Your task to perform on an android device: Open Yahoo.com Image 0: 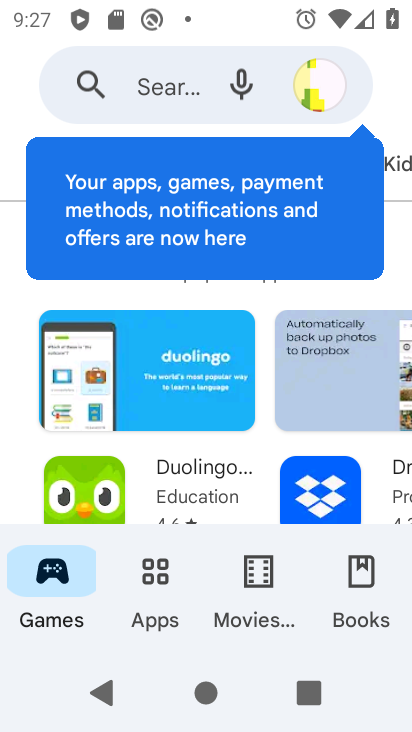
Step 0: press home button
Your task to perform on an android device: Open Yahoo.com Image 1: 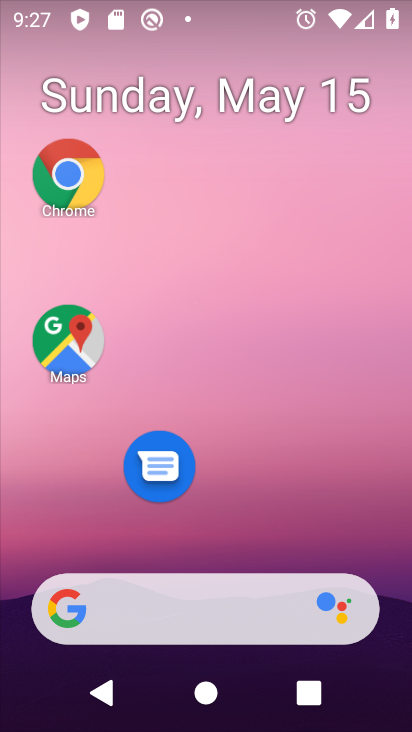
Step 1: click (67, 180)
Your task to perform on an android device: Open Yahoo.com Image 2: 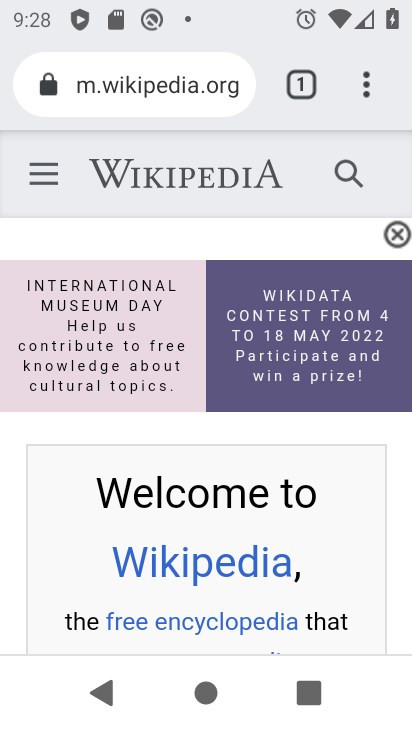
Step 2: click (108, 85)
Your task to perform on an android device: Open Yahoo.com Image 3: 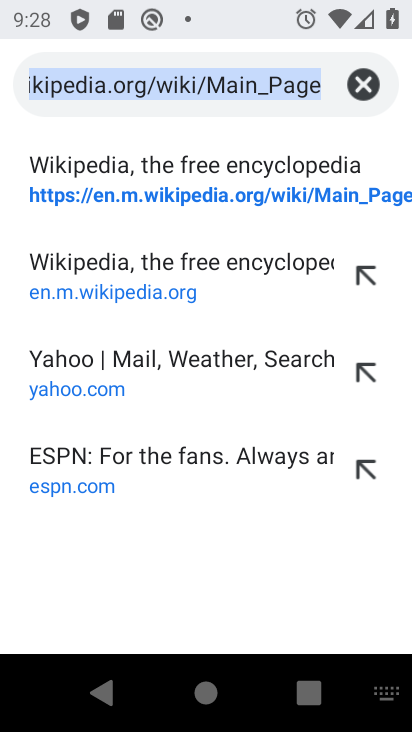
Step 3: type "yahoo.com"
Your task to perform on an android device: Open Yahoo.com Image 4: 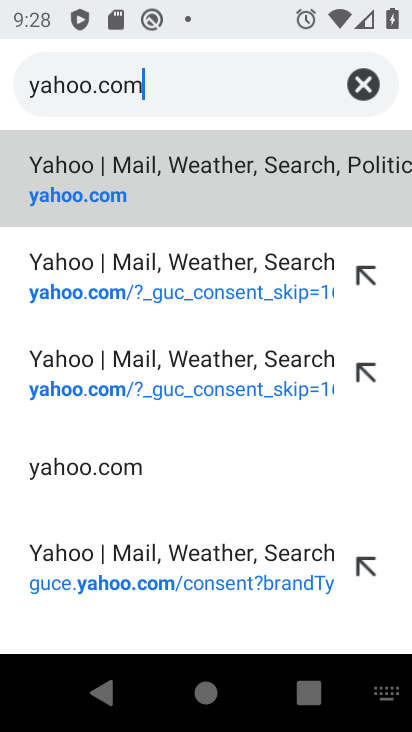
Step 4: click (58, 205)
Your task to perform on an android device: Open Yahoo.com Image 5: 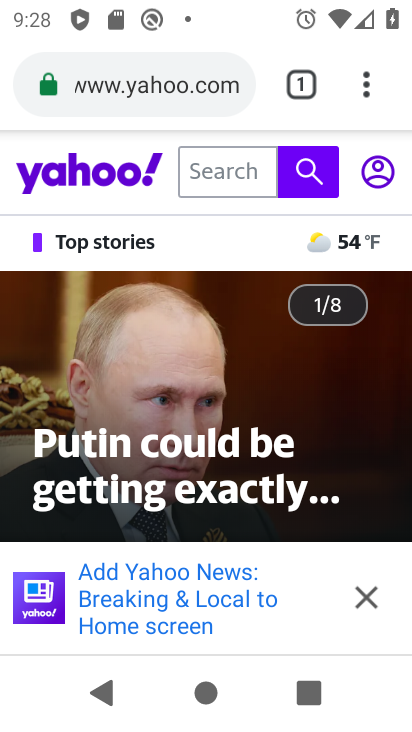
Step 5: task complete